Your task to perform on an android device: Open Google Maps Image 0: 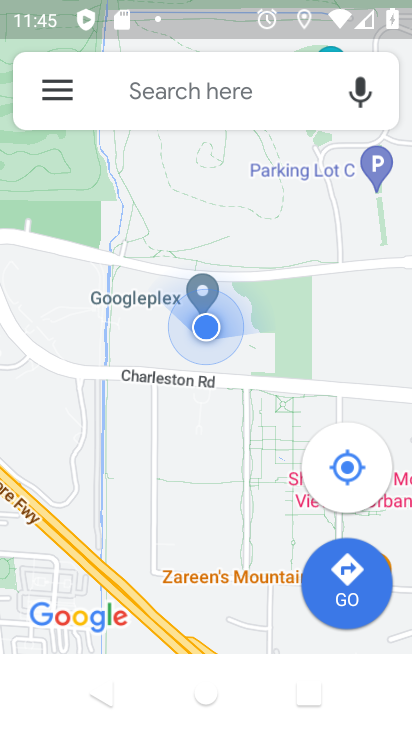
Step 0: task complete